Your task to perform on an android device: toggle translation in the chrome app Image 0: 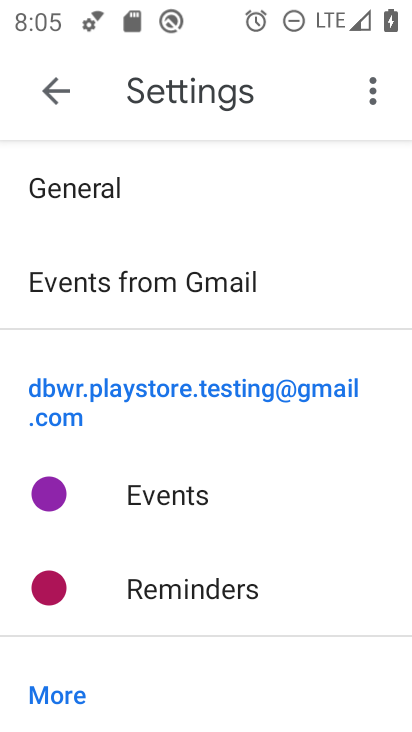
Step 0: press home button
Your task to perform on an android device: toggle translation in the chrome app Image 1: 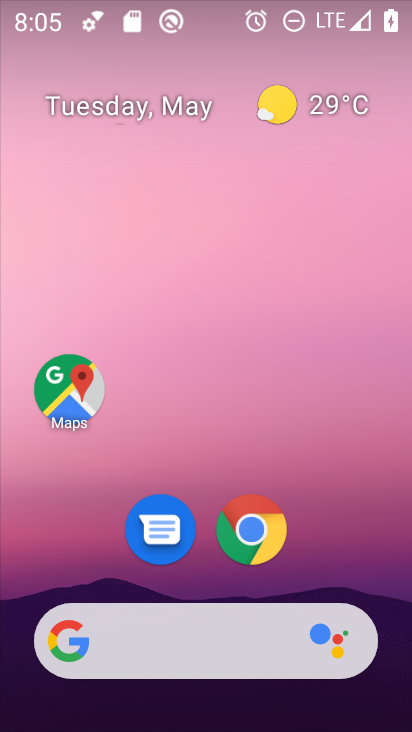
Step 1: drag from (371, 567) to (168, 54)
Your task to perform on an android device: toggle translation in the chrome app Image 2: 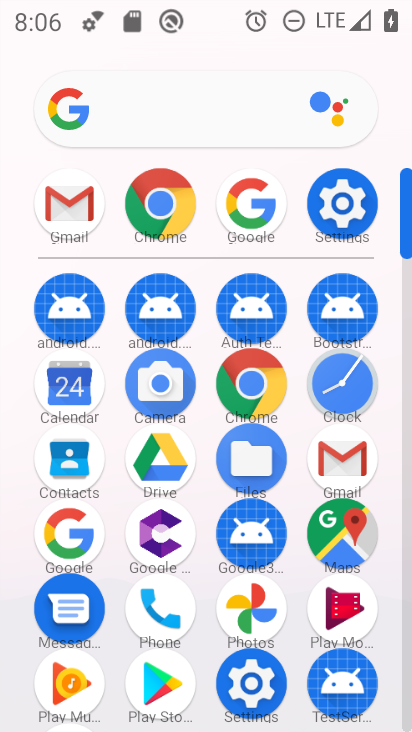
Step 2: click (249, 396)
Your task to perform on an android device: toggle translation in the chrome app Image 3: 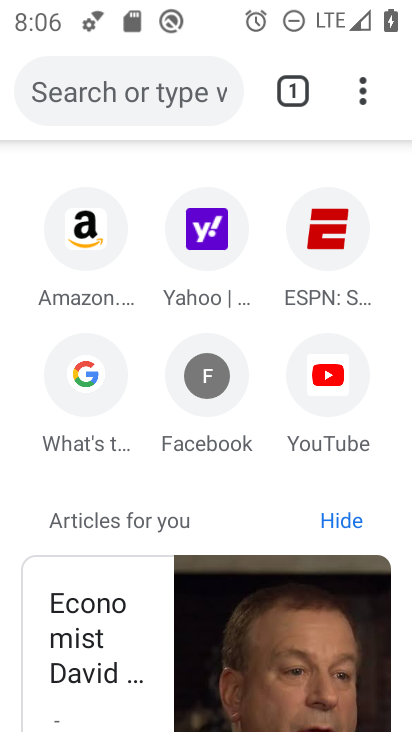
Step 3: click (359, 89)
Your task to perform on an android device: toggle translation in the chrome app Image 4: 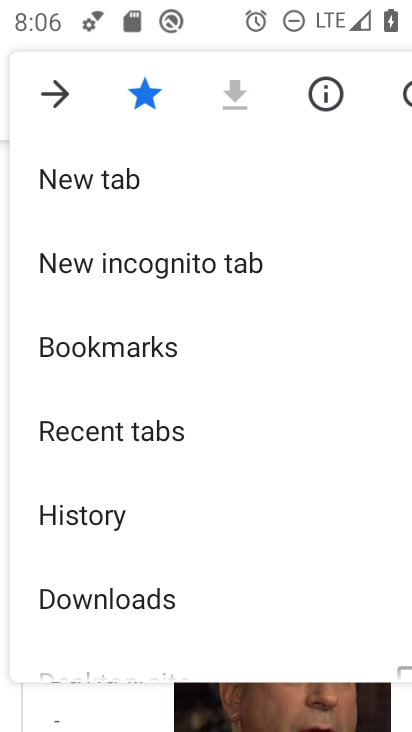
Step 4: drag from (185, 618) to (203, 274)
Your task to perform on an android device: toggle translation in the chrome app Image 5: 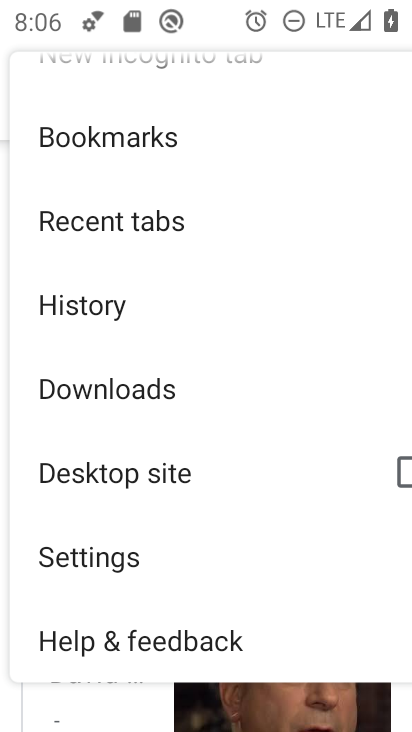
Step 5: click (134, 567)
Your task to perform on an android device: toggle translation in the chrome app Image 6: 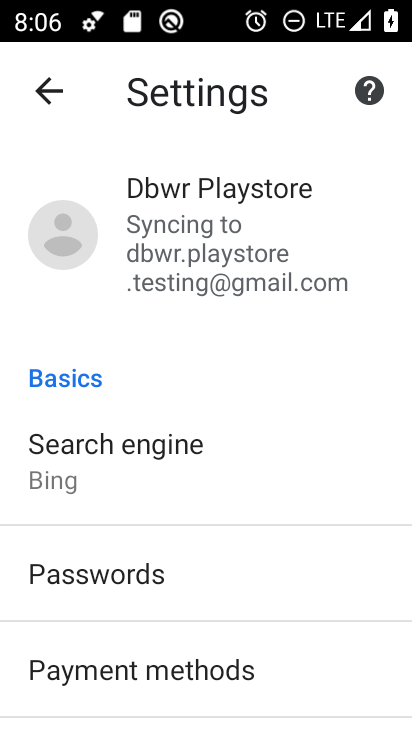
Step 6: drag from (140, 649) to (133, 229)
Your task to perform on an android device: toggle translation in the chrome app Image 7: 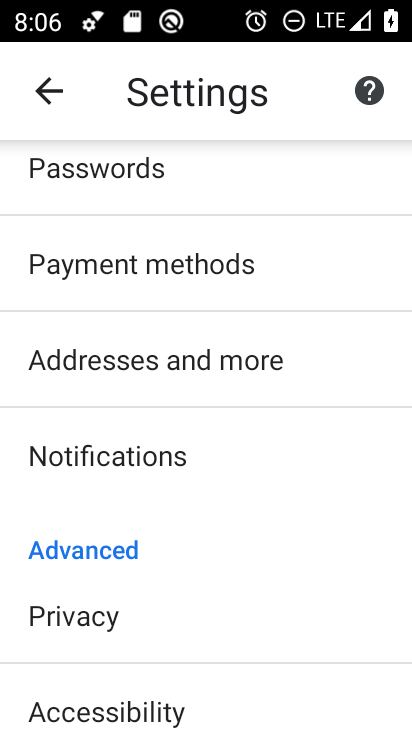
Step 7: drag from (127, 691) to (163, 320)
Your task to perform on an android device: toggle translation in the chrome app Image 8: 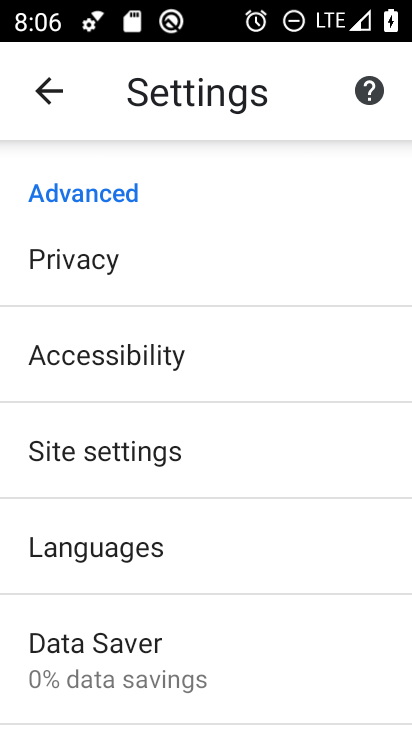
Step 8: click (184, 563)
Your task to perform on an android device: toggle translation in the chrome app Image 9: 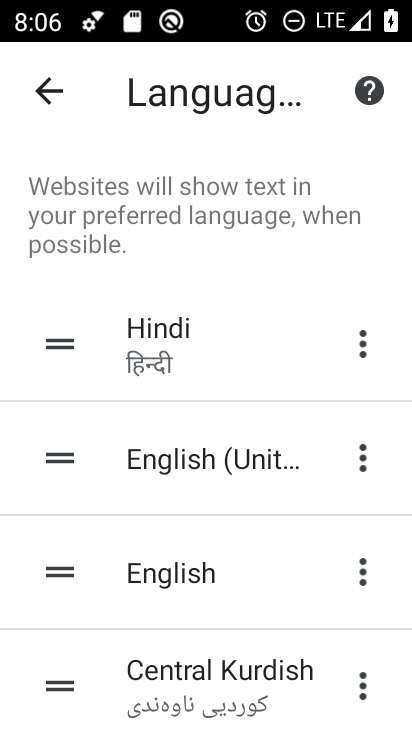
Step 9: drag from (199, 652) to (167, 233)
Your task to perform on an android device: toggle translation in the chrome app Image 10: 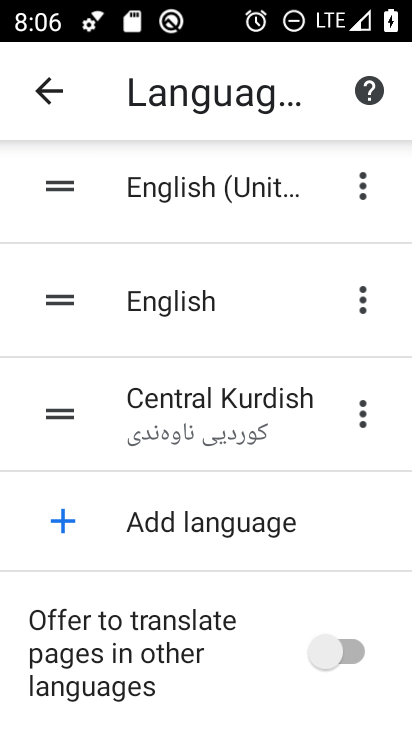
Step 10: click (277, 671)
Your task to perform on an android device: toggle translation in the chrome app Image 11: 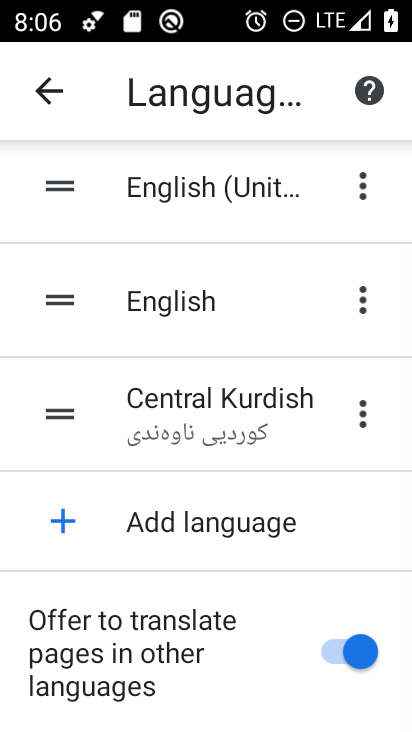
Step 11: task complete